Your task to perform on an android device: Go to wifi settings Image 0: 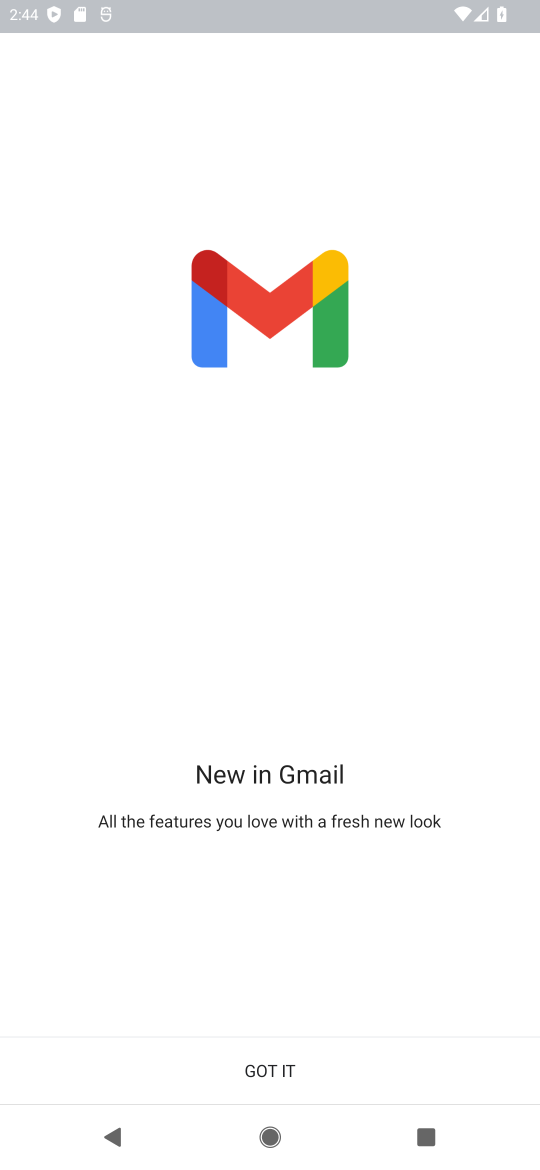
Step 0: press home button
Your task to perform on an android device: Go to wifi settings Image 1: 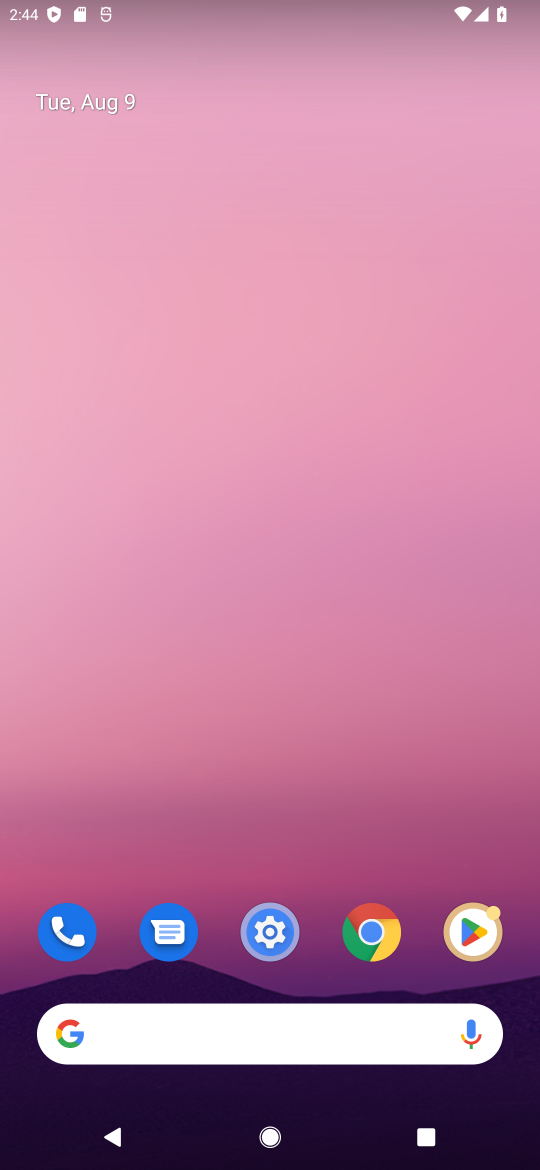
Step 1: drag from (53, 1107) to (428, 426)
Your task to perform on an android device: Go to wifi settings Image 2: 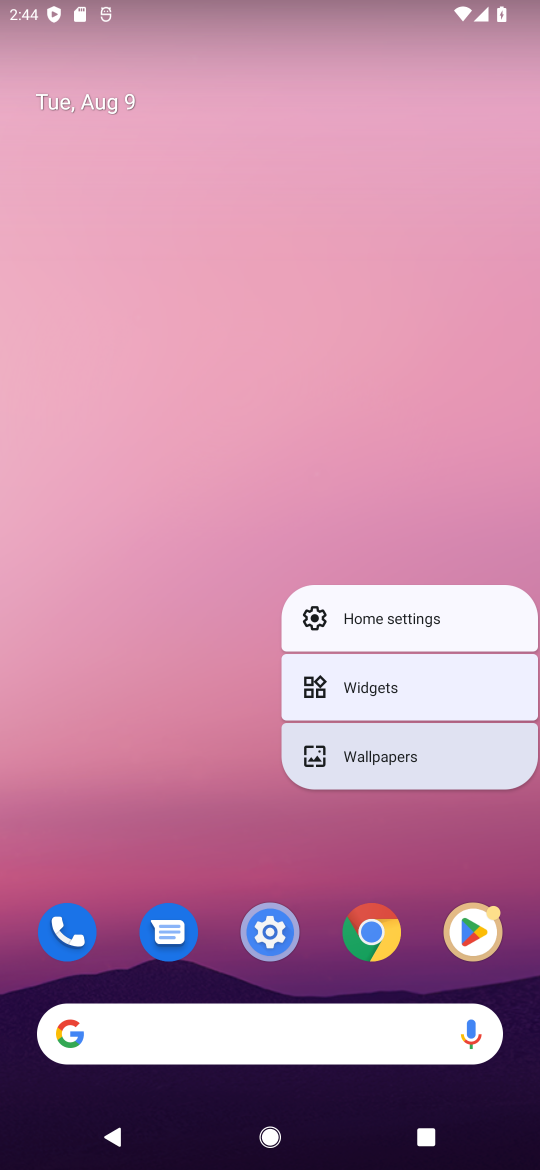
Step 2: click (259, 924)
Your task to perform on an android device: Go to wifi settings Image 3: 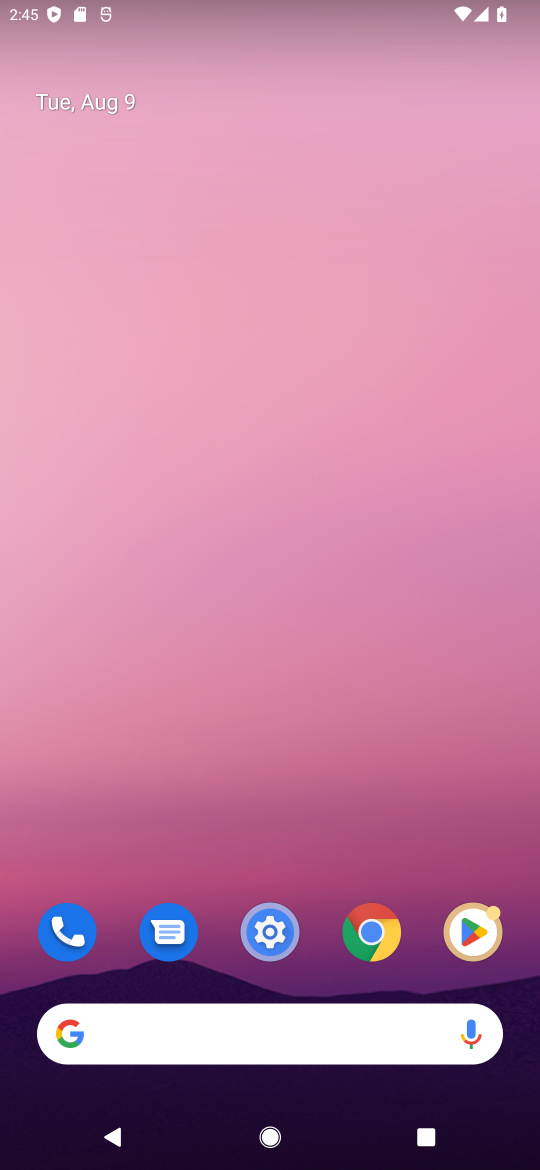
Step 3: click (248, 931)
Your task to perform on an android device: Go to wifi settings Image 4: 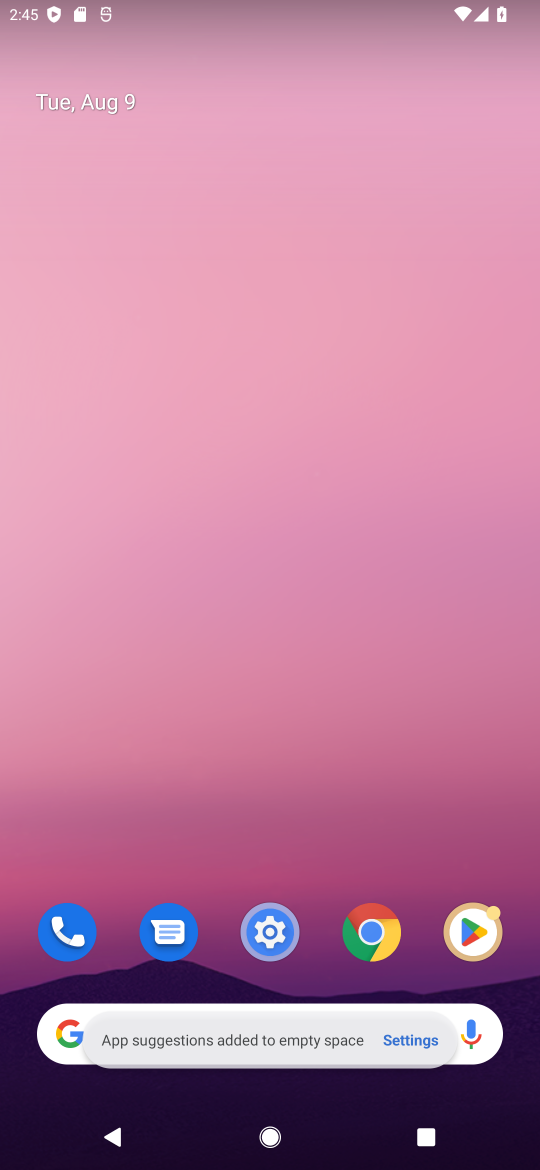
Step 4: click (248, 931)
Your task to perform on an android device: Go to wifi settings Image 5: 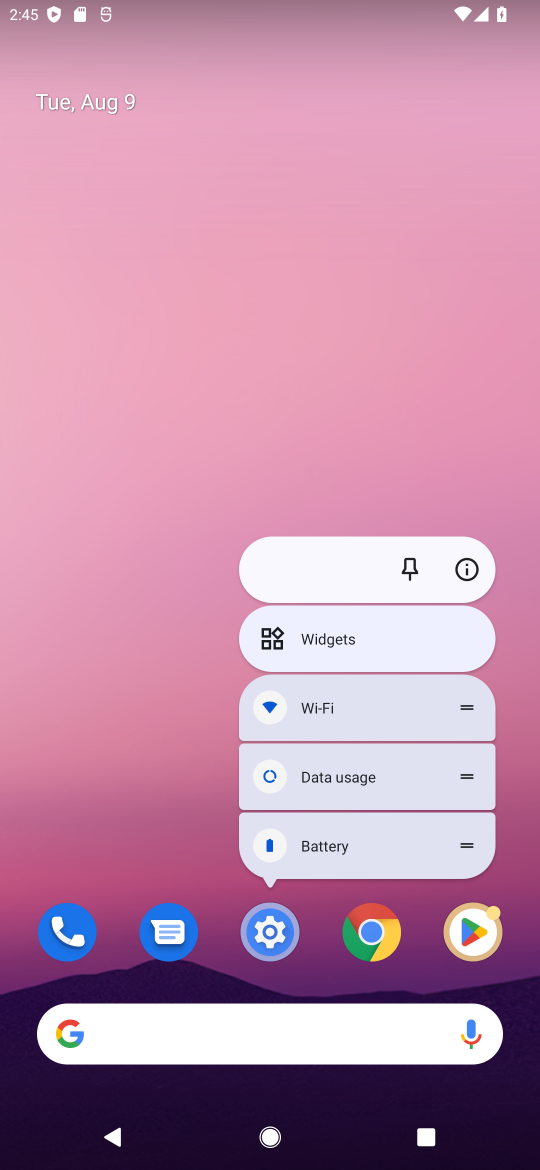
Step 5: task complete